Your task to perform on an android device: see tabs open on other devices in the chrome app Image 0: 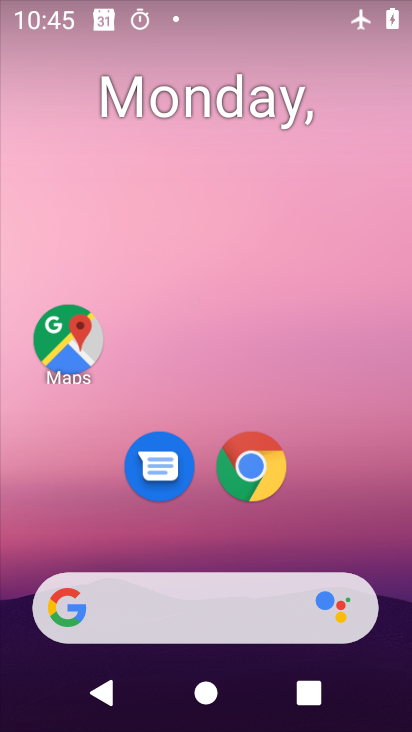
Step 0: click (256, 467)
Your task to perform on an android device: see tabs open on other devices in the chrome app Image 1: 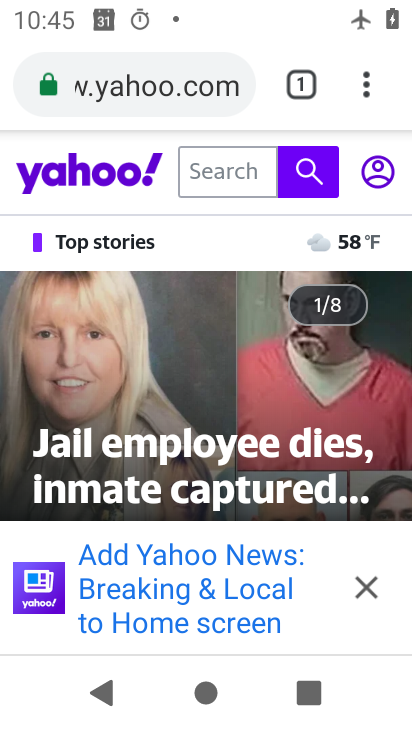
Step 1: click (374, 73)
Your task to perform on an android device: see tabs open on other devices in the chrome app Image 2: 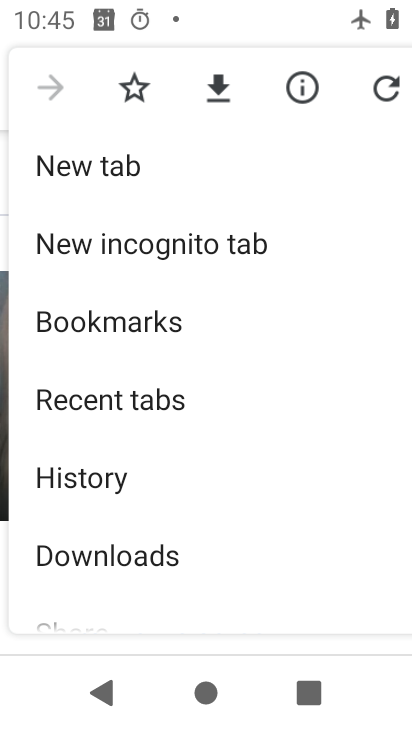
Step 2: click (149, 398)
Your task to perform on an android device: see tabs open on other devices in the chrome app Image 3: 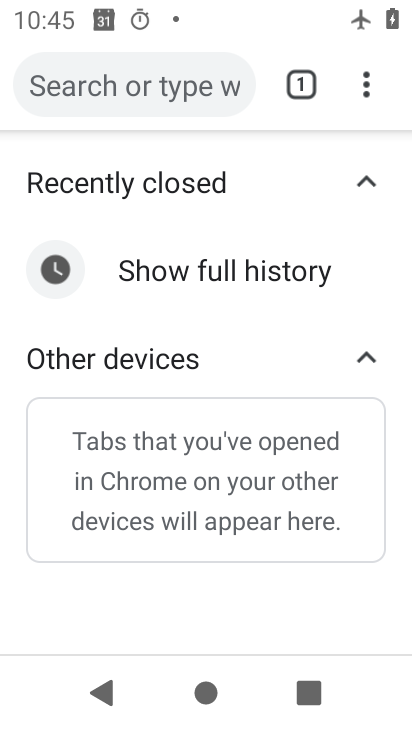
Step 3: task complete